Your task to perform on an android device: open wifi settings Image 0: 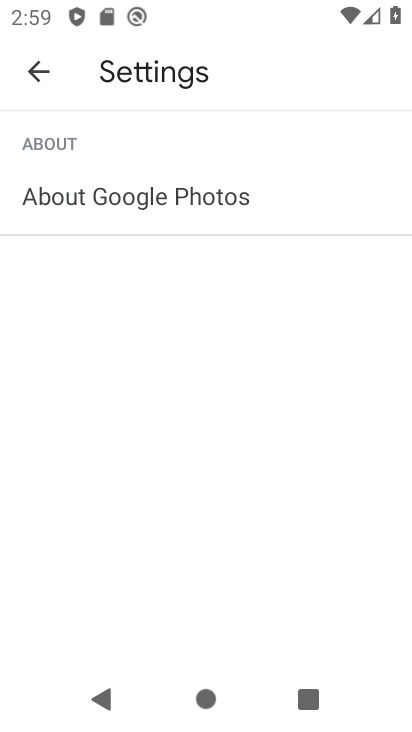
Step 0: press home button
Your task to perform on an android device: open wifi settings Image 1: 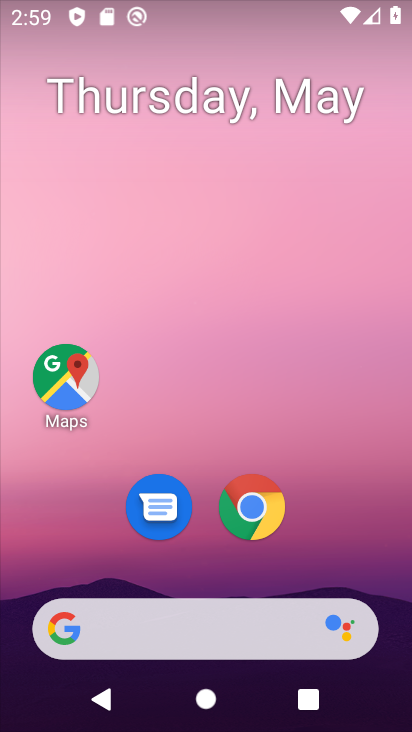
Step 1: drag from (166, 5) to (158, 434)
Your task to perform on an android device: open wifi settings Image 2: 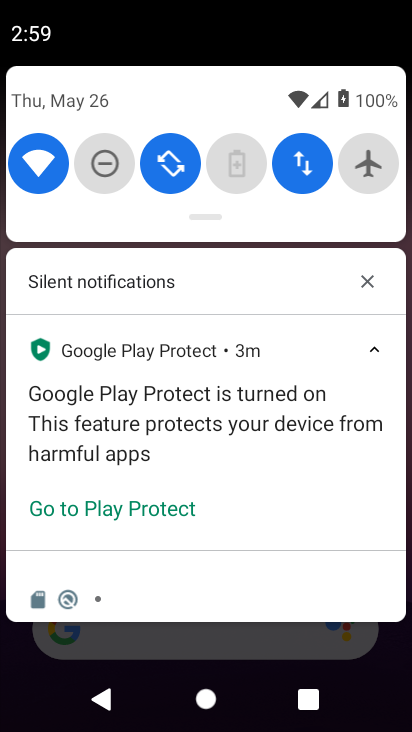
Step 2: click (41, 168)
Your task to perform on an android device: open wifi settings Image 3: 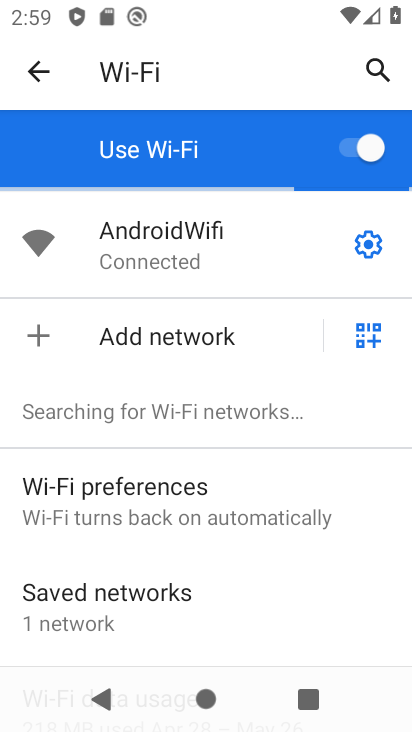
Step 3: task complete